Your task to perform on an android device: Turn off the flashlight Image 0: 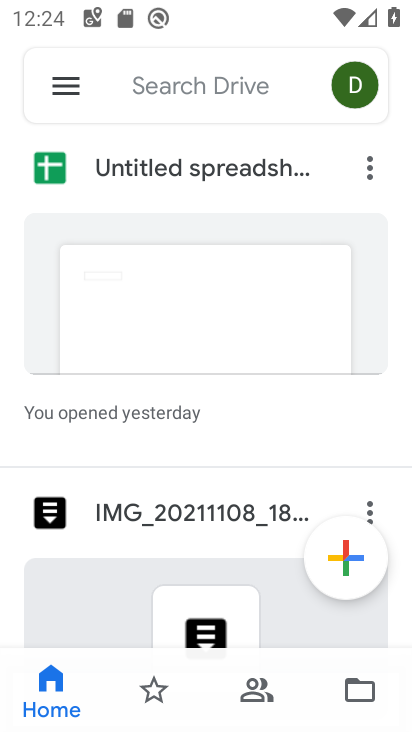
Step 0: press home button
Your task to perform on an android device: Turn off the flashlight Image 1: 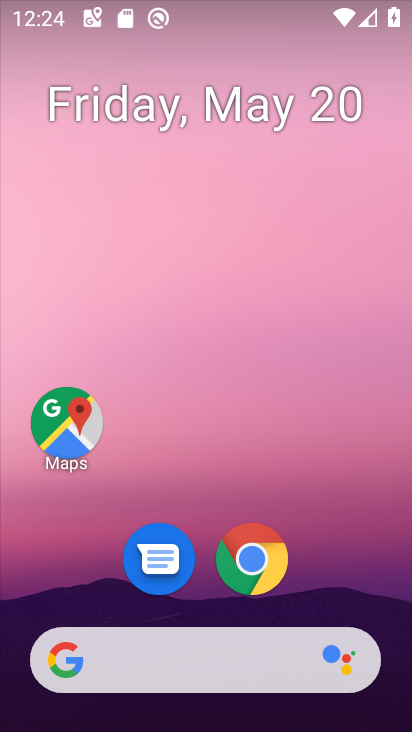
Step 1: click (367, 578)
Your task to perform on an android device: Turn off the flashlight Image 2: 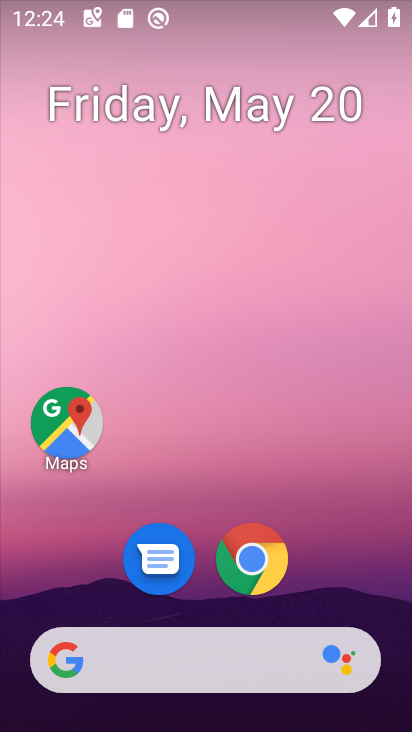
Step 2: drag from (311, 5) to (324, 446)
Your task to perform on an android device: Turn off the flashlight Image 3: 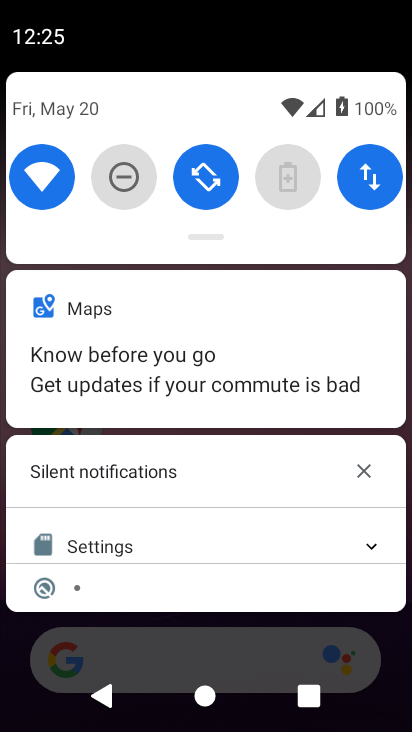
Step 3: drag from (256, 221) to (278, 612)
Your task to perform on an android device: Turn off the flashlight Image 4: 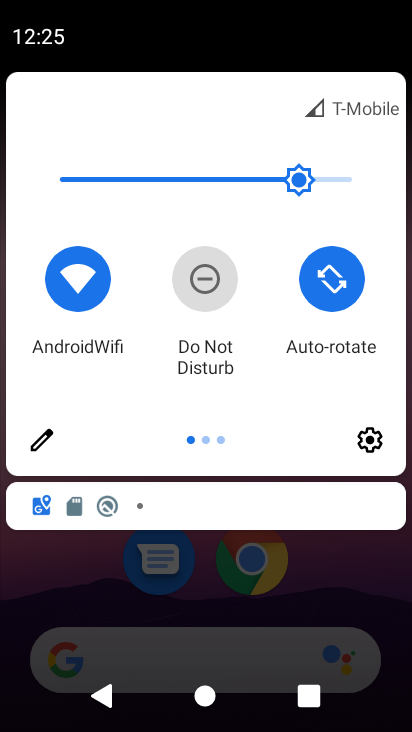
Step 4: click (41, 433)
Your task to perform on an android device: Turn off the flashlight Image 5: 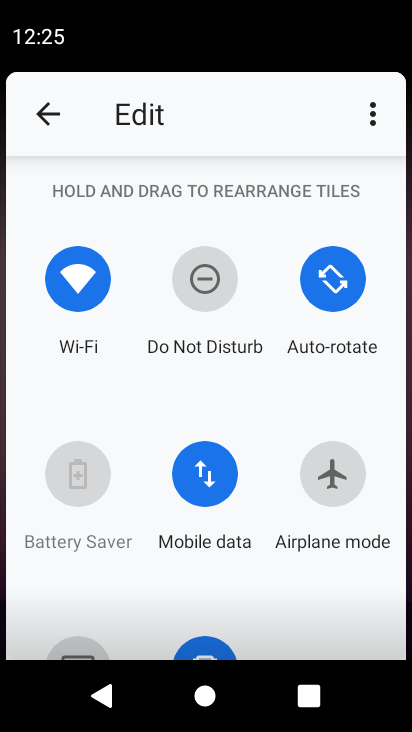
Step 5: task complete